Your task to perform on an android device: Is it going to rain this weekend? Image 0: 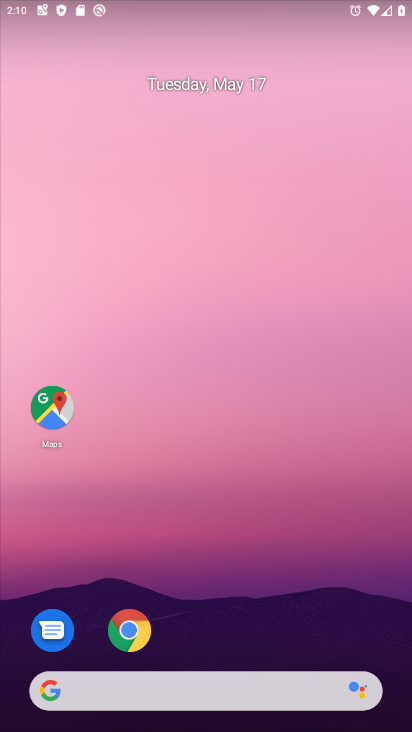
Step 0: drag from (390, 602) to (329, 75)
Your task to perform on an android device: Is it going to rain this weekend? Image 1: 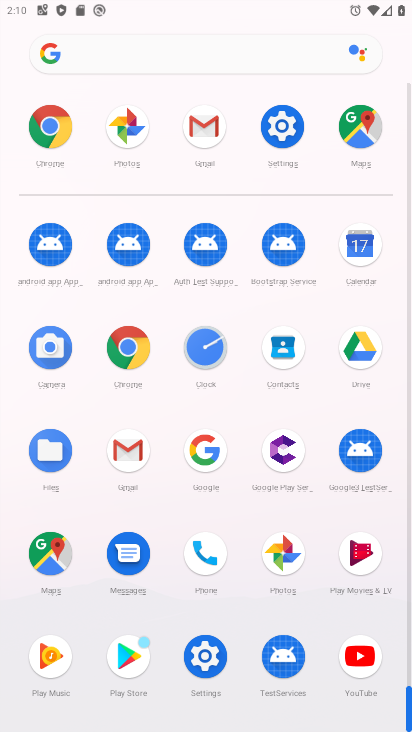
Step 1: click (124, 359)
Your task to perform on an android device: Is it going to rain this weekend? Image 2: 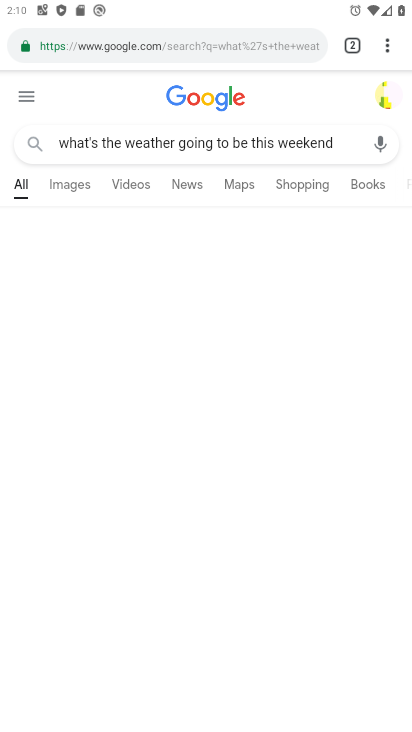
Step 2: click (138, 50)
Your task to perform on an android device: Is it going to rain this weekend? Image 3: 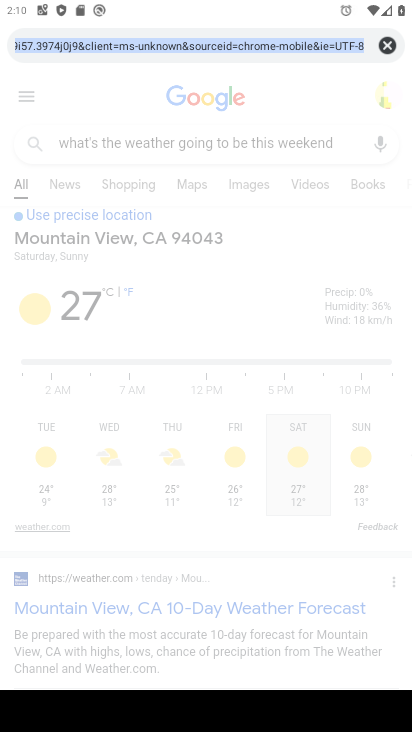
Step 3: click (389, 49)
Your task to perform on an android device: Is it going to rain this weekend? Image 4: 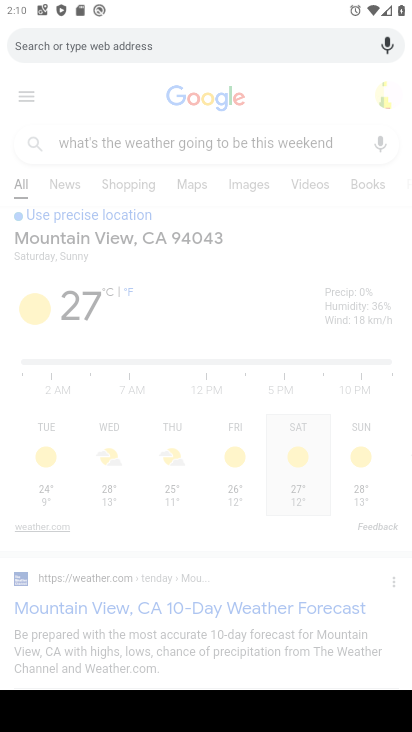
Step 4: type "is it going "
Your task to perform on an android device: Is it going to rain this weekend? Image 5: 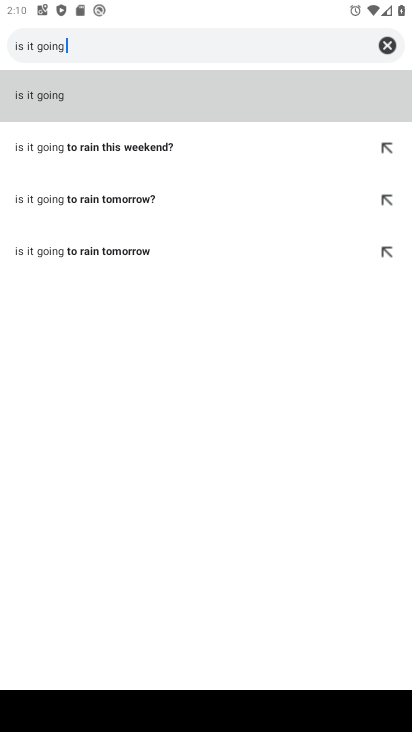
Step 5: click (117, 141)
Your task to perform on an android device: Is it going to rain this weekend? Image 6: 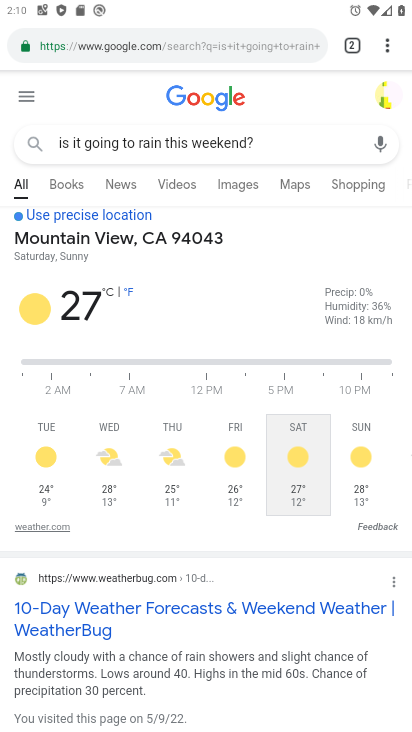
Step 6: task complete